Your task to perform on an android device: turn smart compose on in the gmail app Image 0: 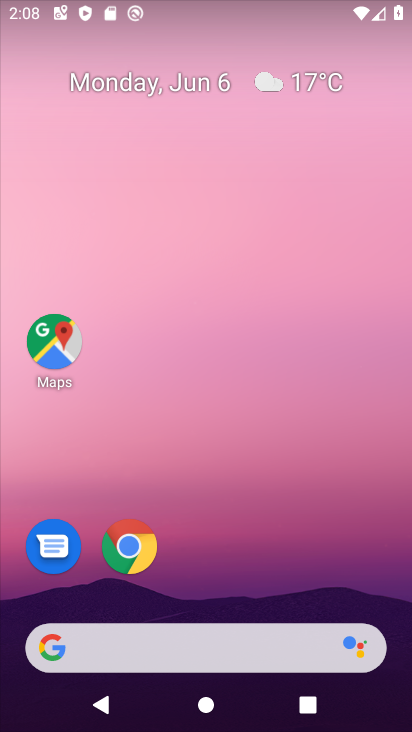
Step 0: drag from (292, 547) to (287, 66)
Your task to perform on an android device: turn smart compose on in the gmail app Image 1: 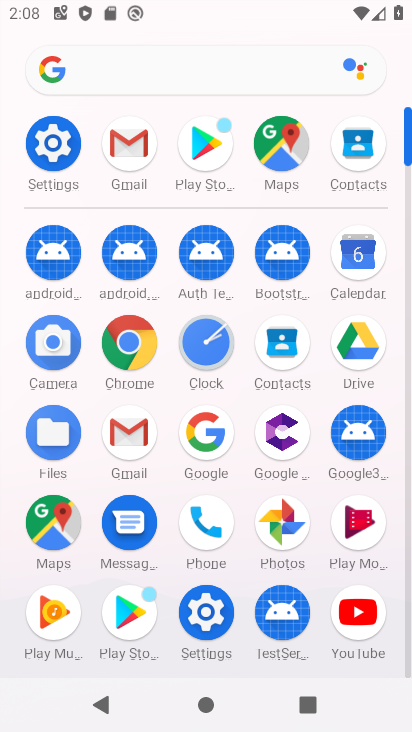
Step 1: click (124, 170)
Your task to perform on an android device: turn smart compose on in the gmail app Image 2: 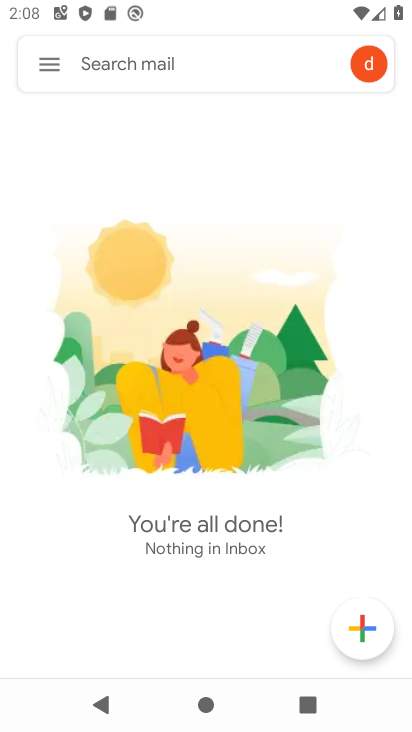
Step 2: task complete